Your task to perform on an android device: turn on wifi Image 0: 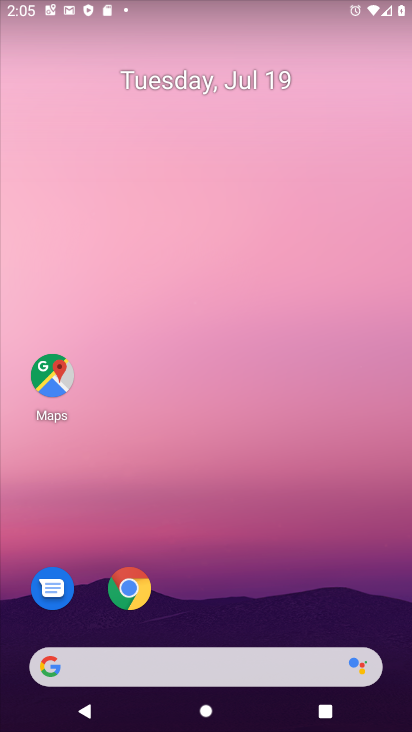
Step 0: drag from (198, 7) to (228, 487)
Your task to perform on an android device: turn on wifi Image 1: 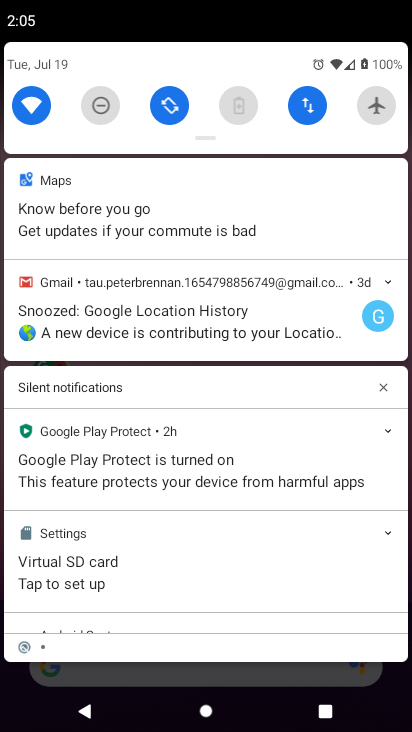
Step 1: task complete